Your task to perform on an android device: Search for hotels in Sydney Image 0: 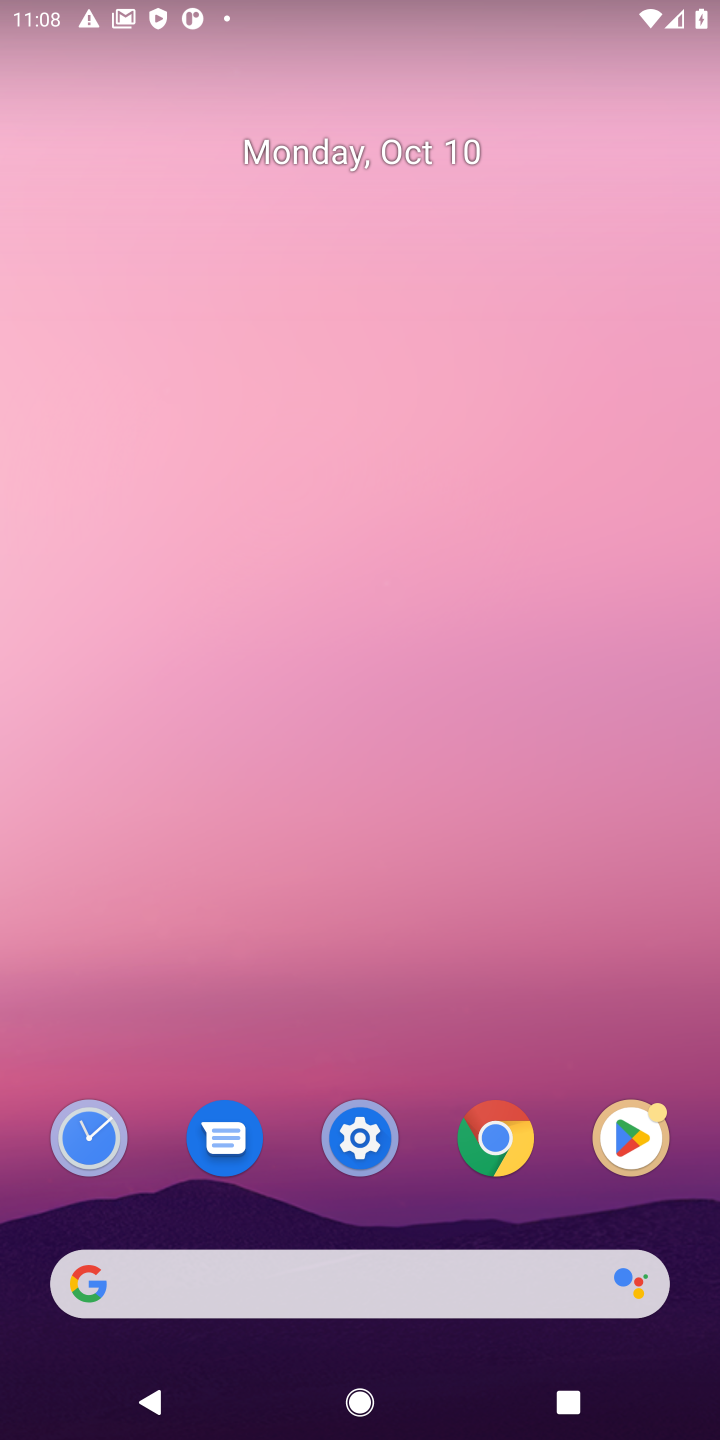
Step 0: press home button
Your task to perform on an android device: Search for hotels in Sydney Image 1: 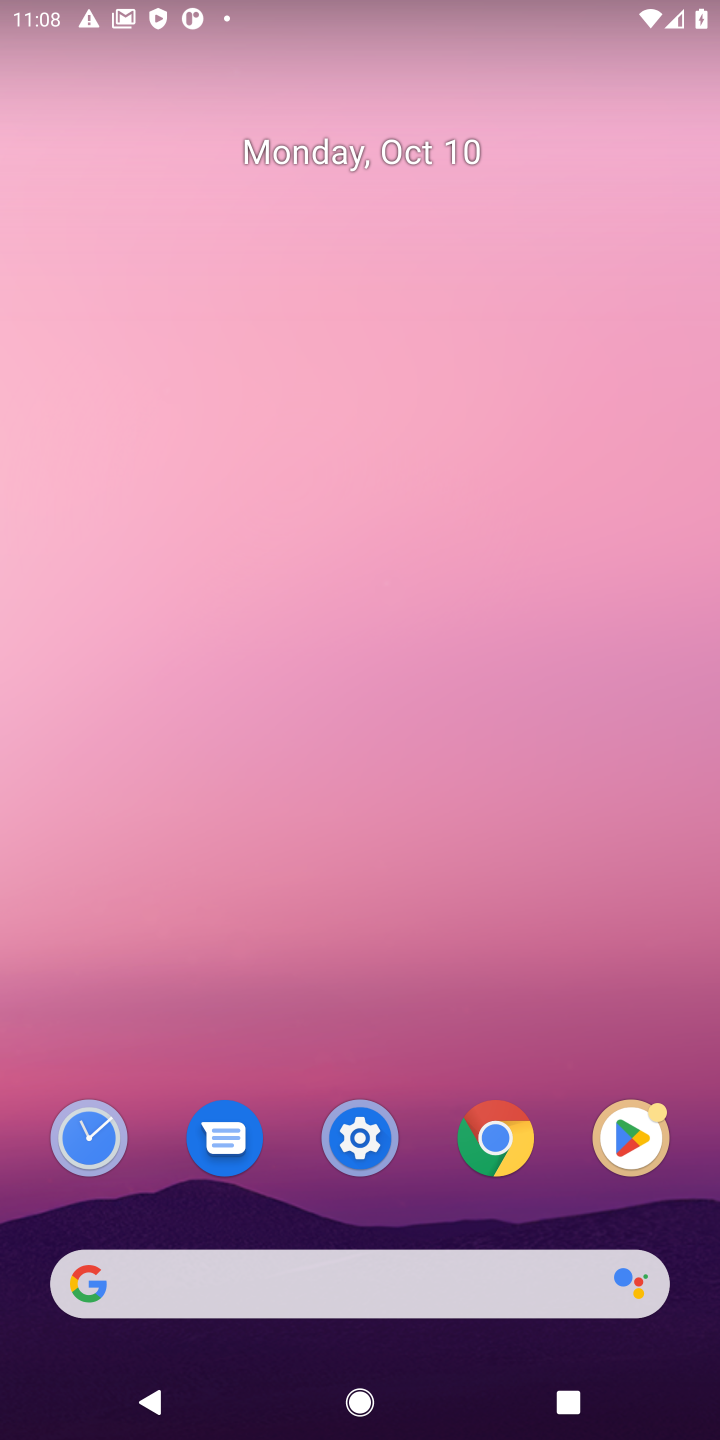
Step 1: click (83, 1283)
Your task to perform on an android device: Search for hotels in Sydney Image 2: 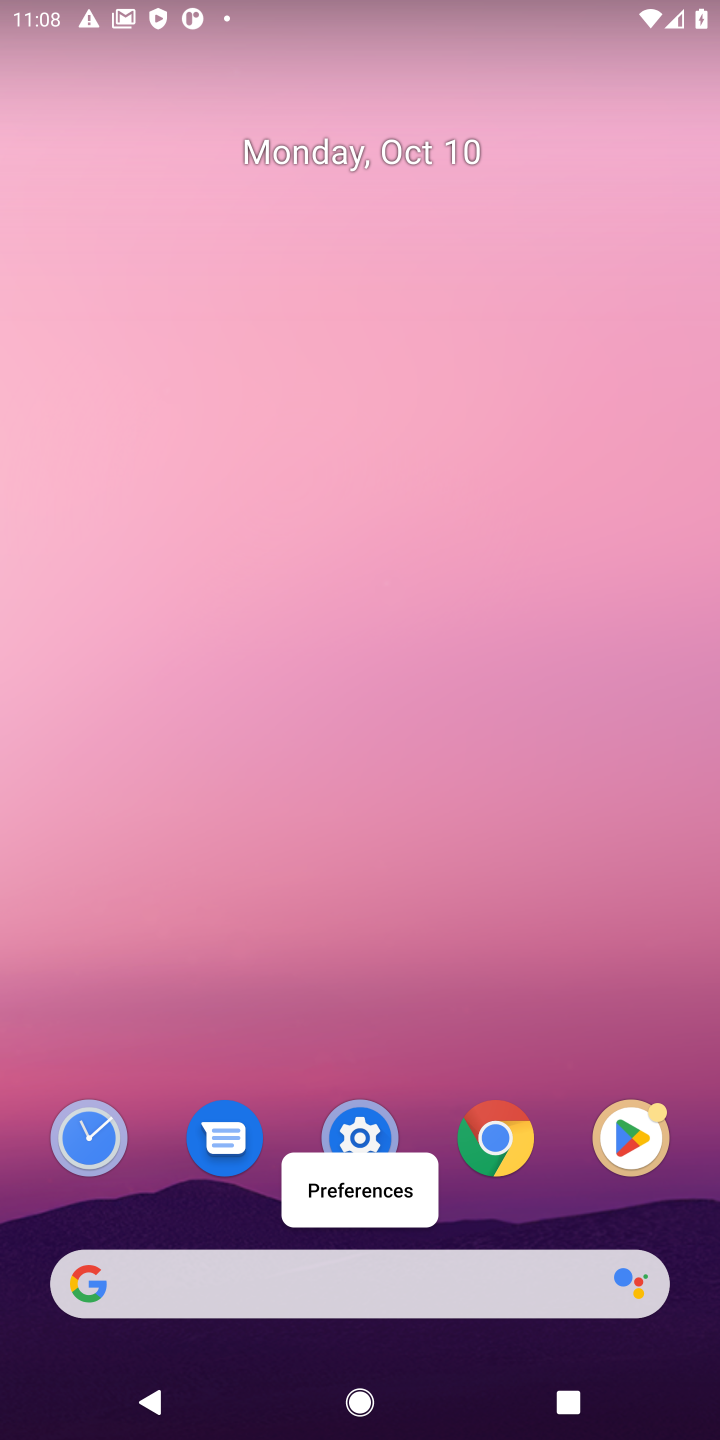
Step 2: click (101, 1282)
Your task to perform on an android device: Search for hotels in Sydney Image 3: 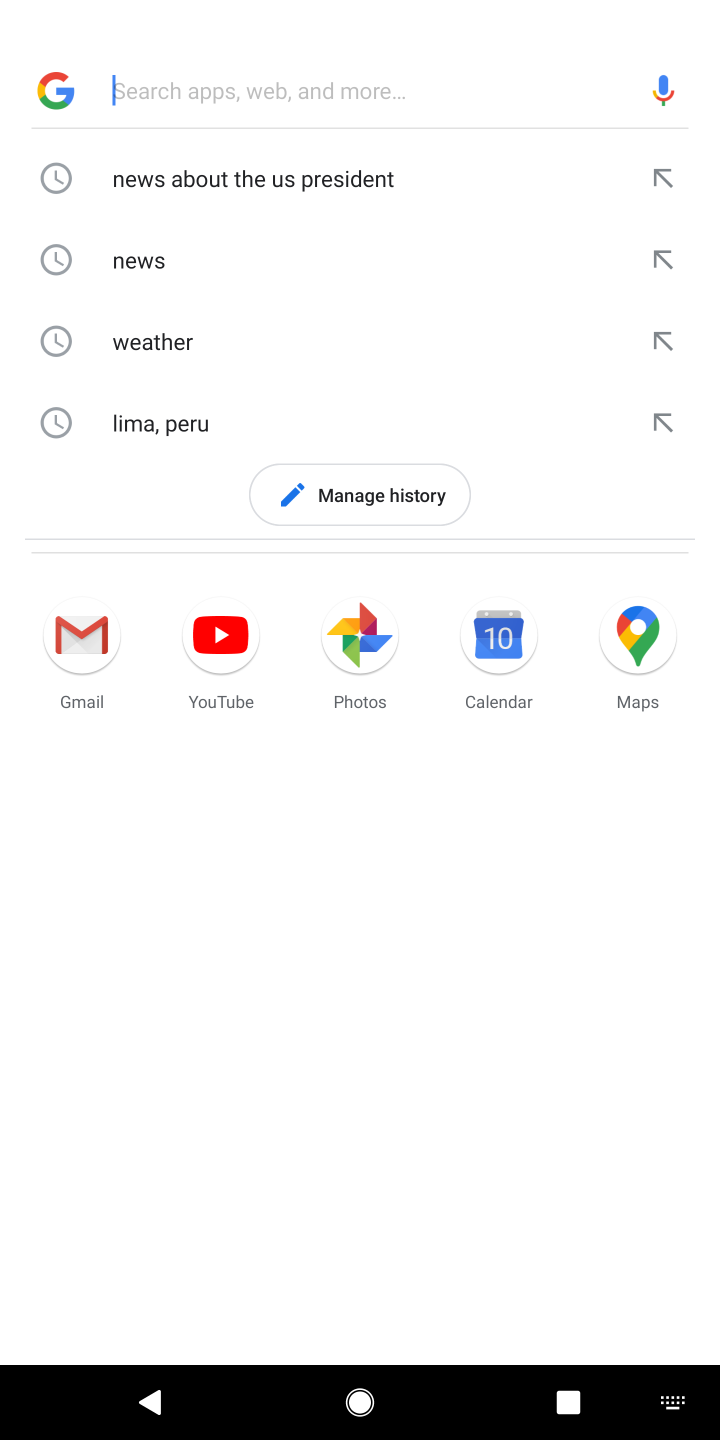
Step 3: type "hotels in Sydney"
Your task to perform on an android device: Search for hotels in Sydney Image 4: 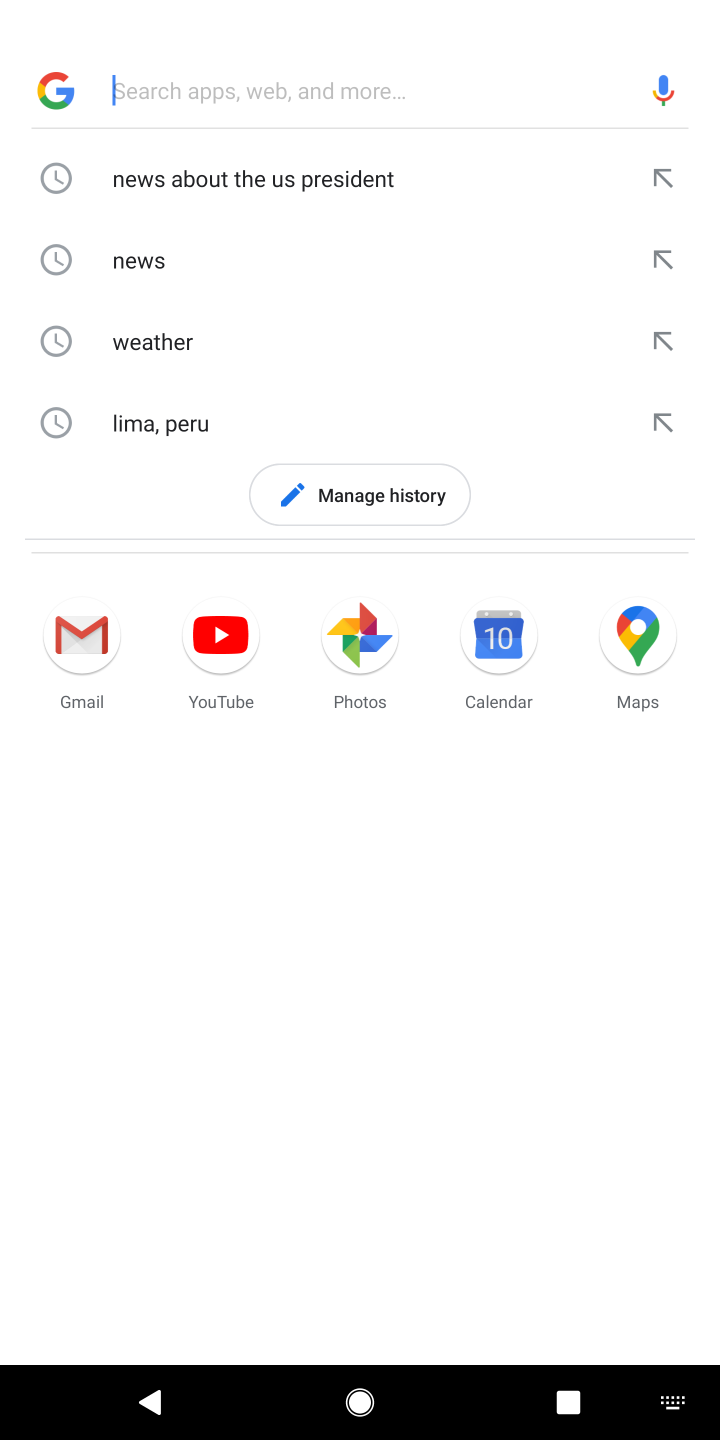
Step 4: click (242, 81)
Your task to perform on an android device: Search for hotels in Sydney Image 5: 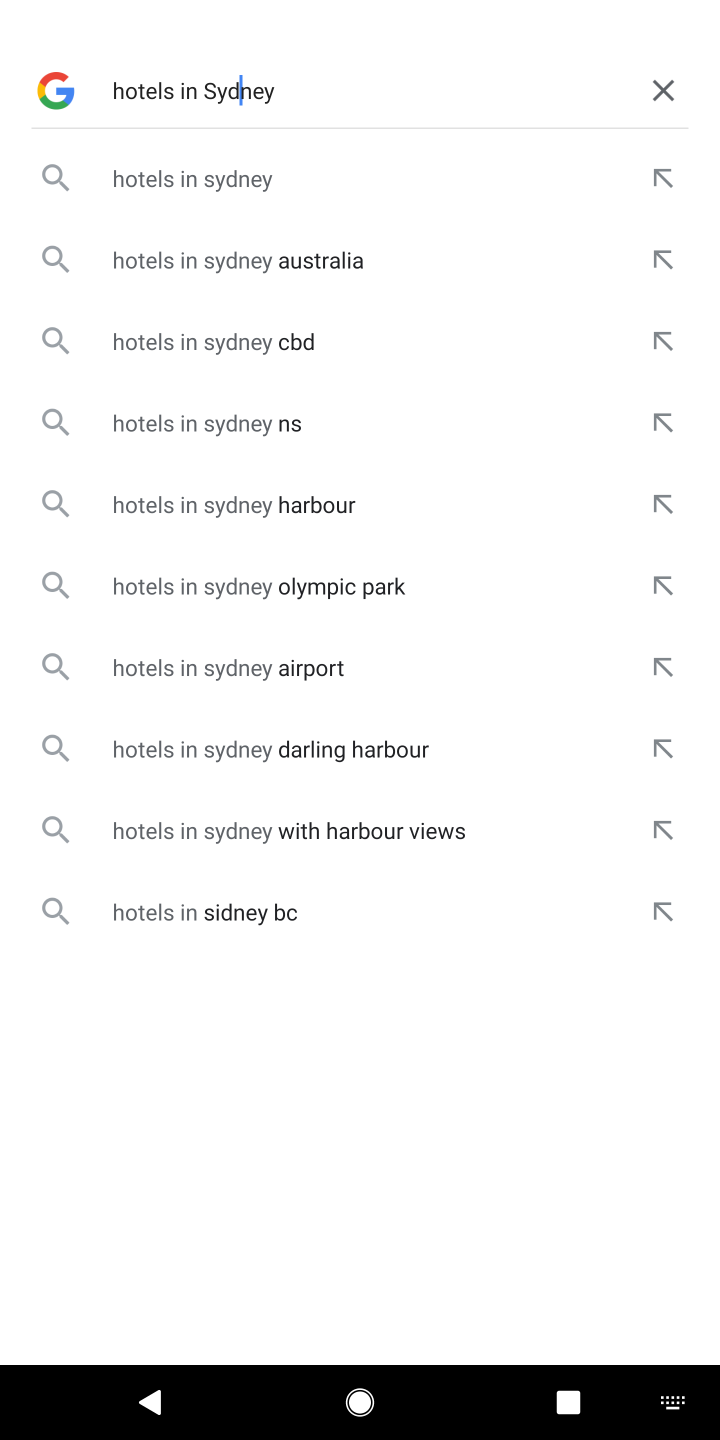
Step 5: click (229, 93)
Your task to perform on an android device: Search for hotels in Sydney Image 6: 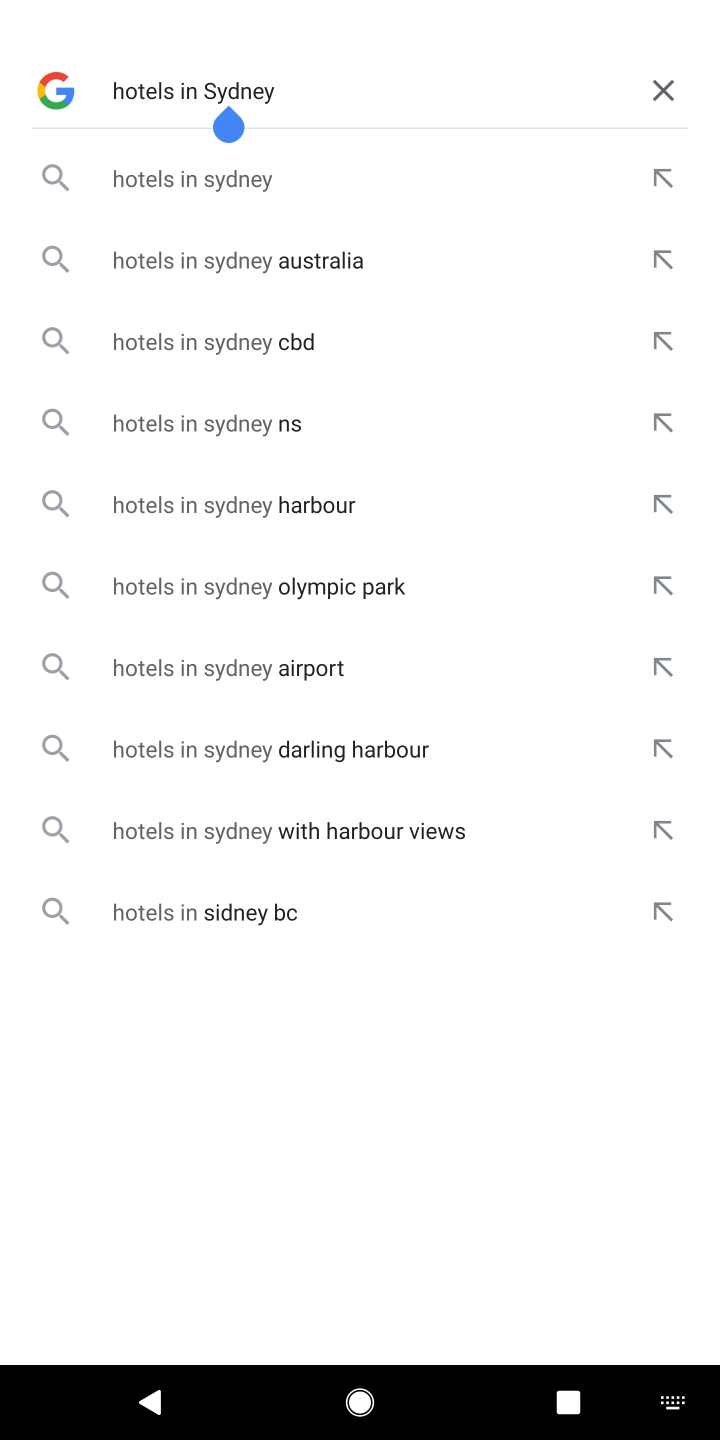
Step 6: press enter
Your task to perform on an android device: Search for hotels in Sydney Image 7: 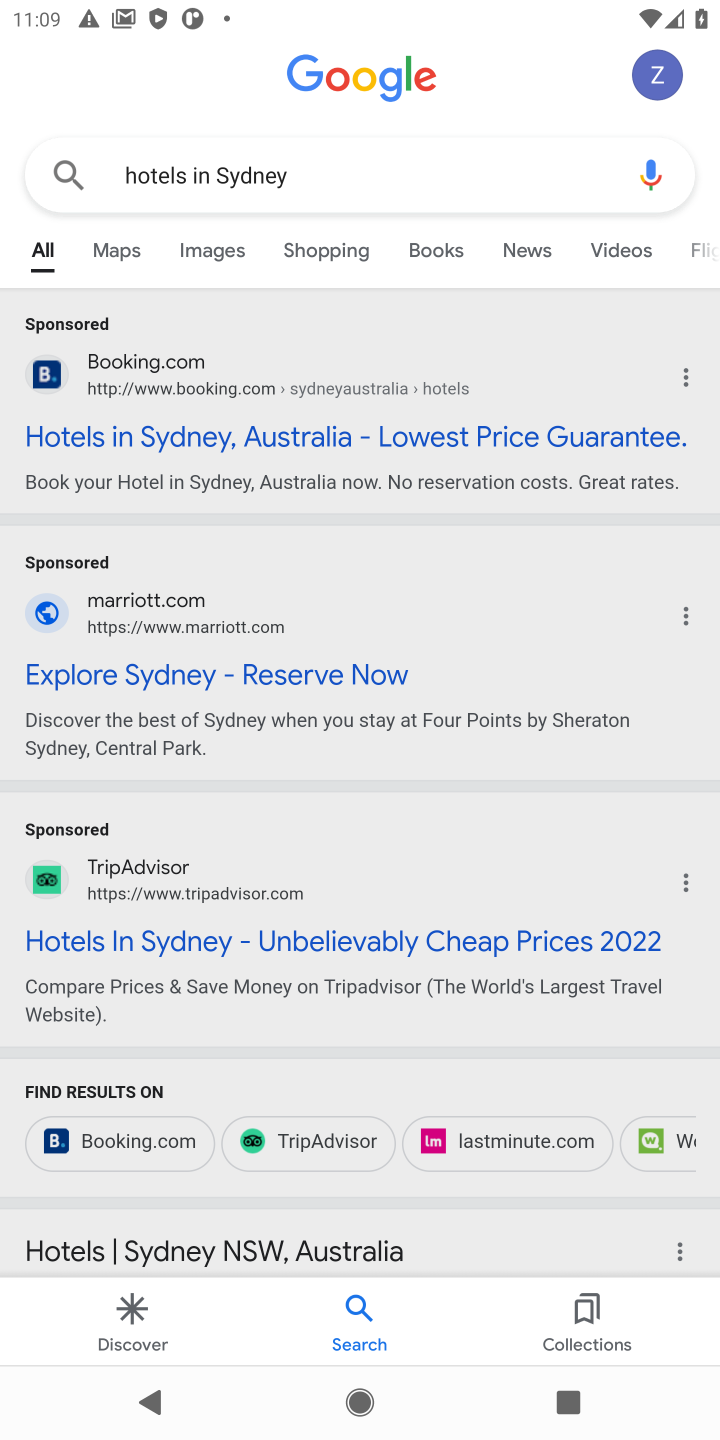
Step 7: task complete